Your task to perform on an android device: What's the weather like in New York? Image 0: 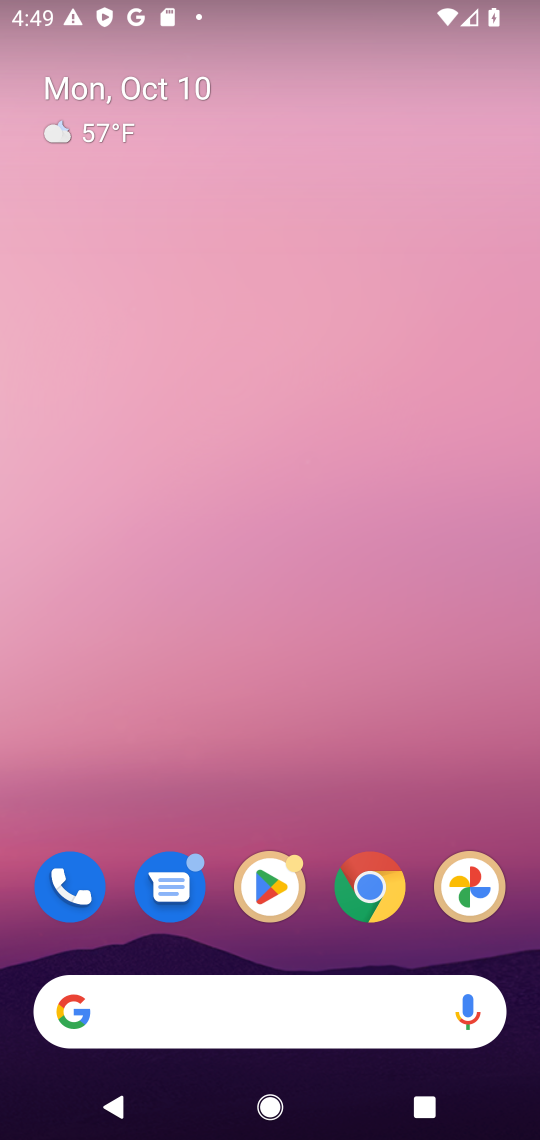
Step 0: click (353, 897)
Your task to perform on an android device: What's the weather like in New York? Image 1: 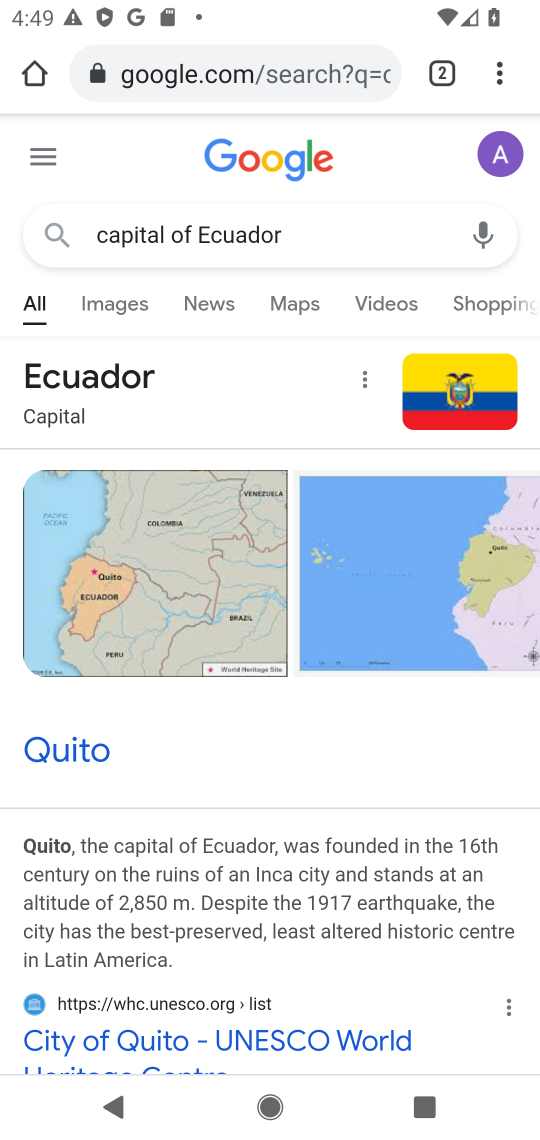
Step 1: click (221, 69)
Your task to perform on an android device: What's the weather like in New York? Image 2: 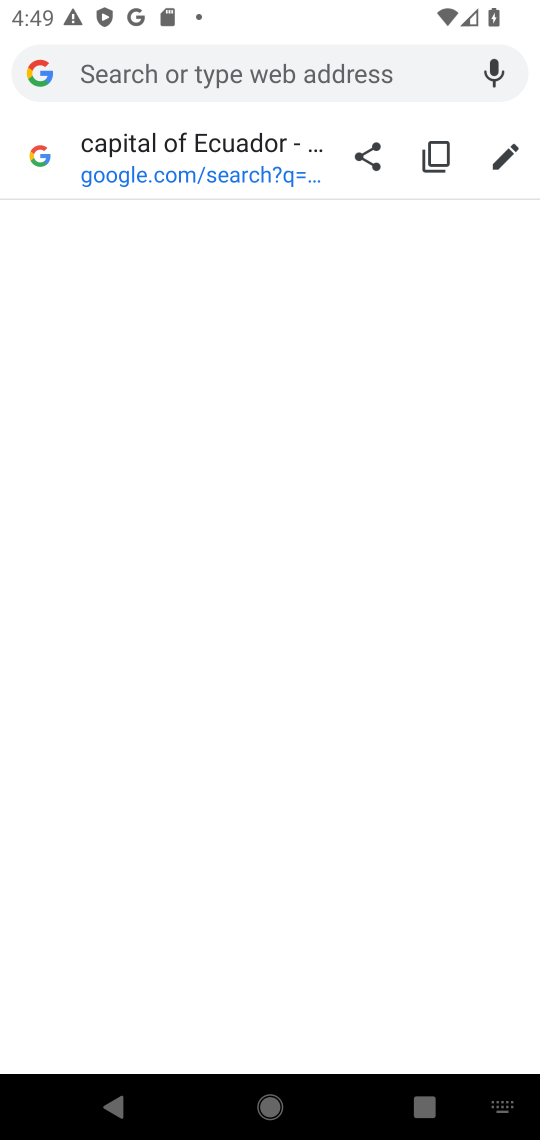
Step 2: type "weather in new york ?"
Your task to perform on an android device: What's the weather like in New York? Image 3: 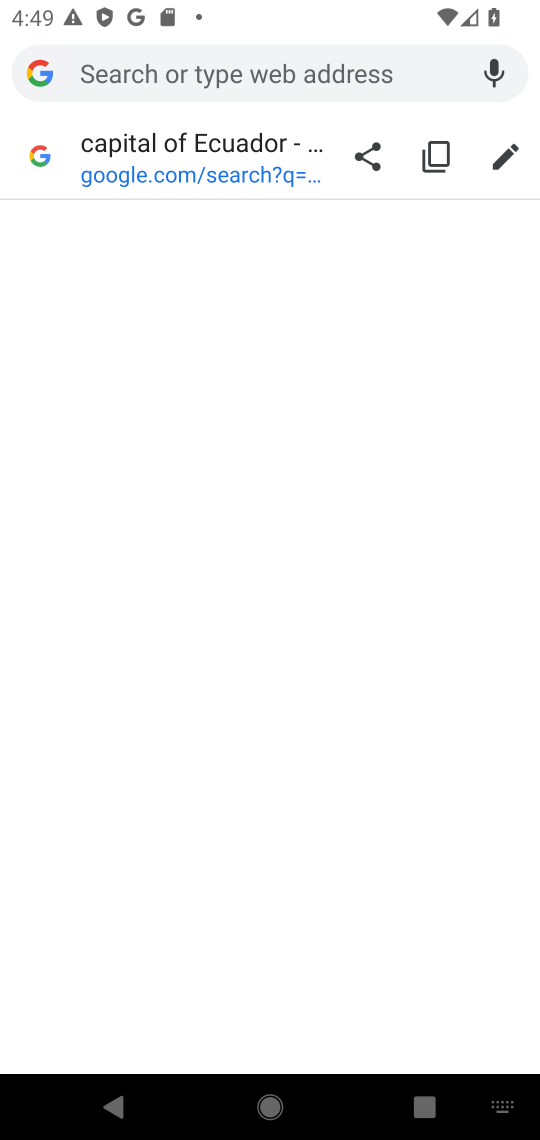
Step 3: click (252, 73)
Your task to perform on an android device: What's the weather like in New York? Image 4: 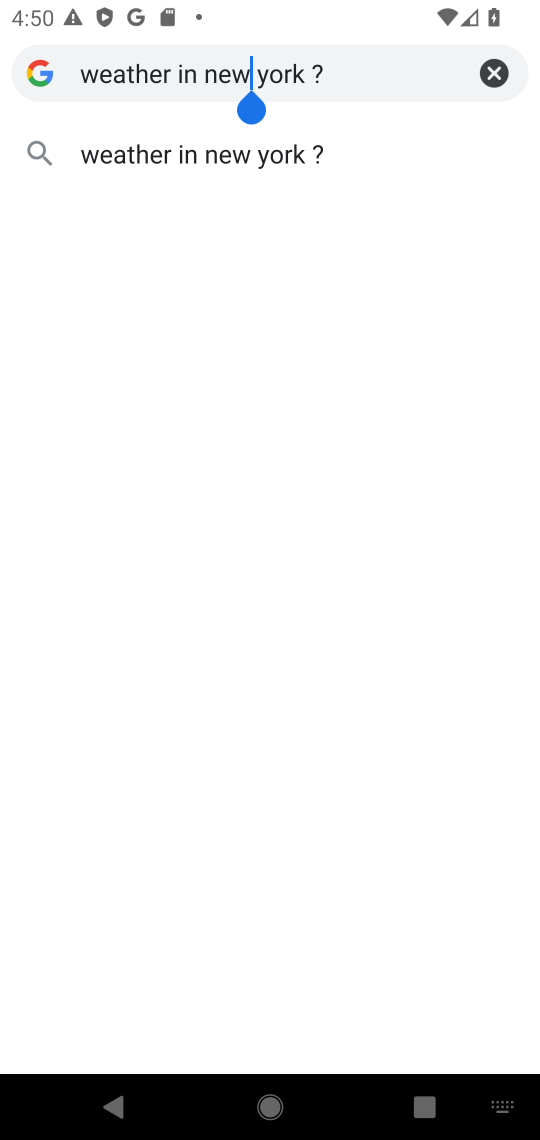
Step 4: click (260, 157)
Your task to perform on an android device: What's the weather like in New York? Image 5: 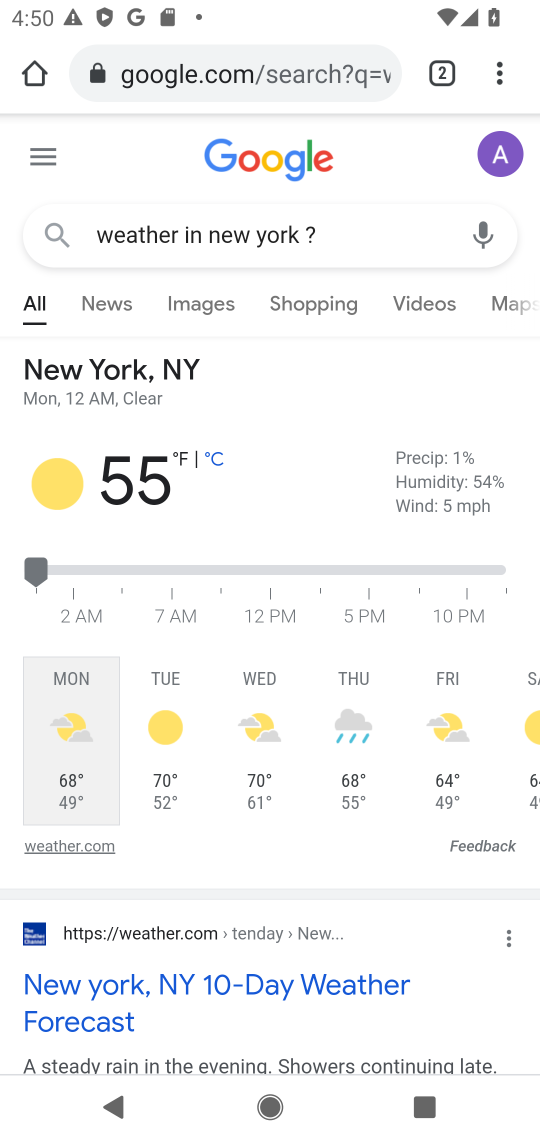
Step 5: task complete